Your task to perform on an android device: move a message to another label in the gmail app Image 0: 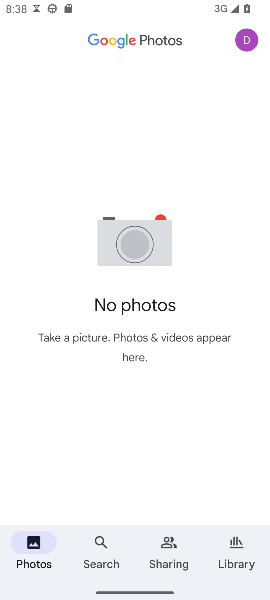
Step 0: press home button
Your task to perform on an android device: move a message to another label in the gmail app Image 1: 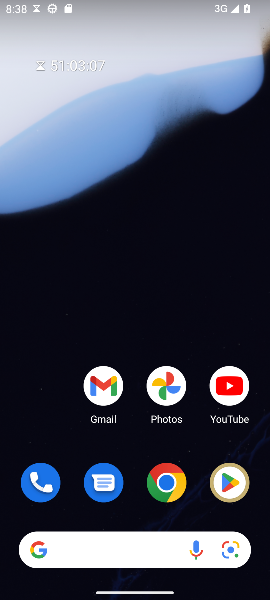
Step 1: drag from (202, 479) to (0, 50)
Your task to perform on an android device: move a message to another label in the gmail app Image 2: 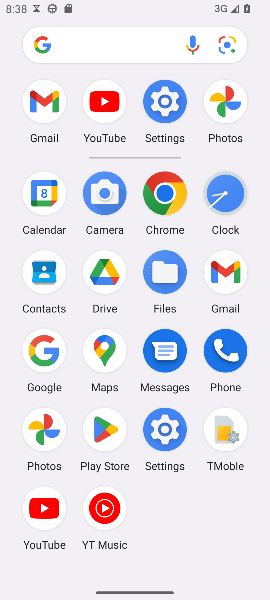
Step 2: click (31, 107)
Your task to perform on an android device: move a message to another label in the gmail app Image 3: 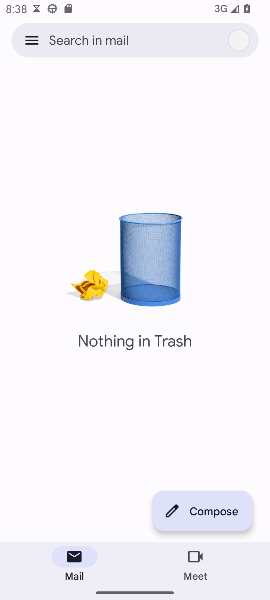
Step 3: click (21, 43)
Your task to perform on an android device: move a message to another label in the gmail app Image 4: 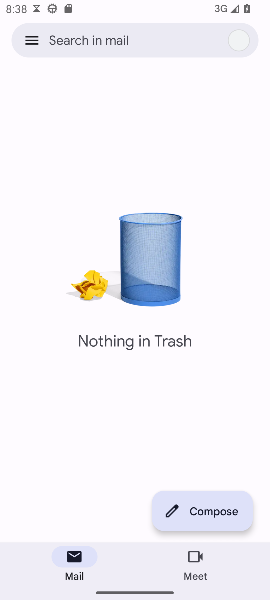
Step 4: click (21, 42)
Your task to perform on an android device: move a message to another label in the gmail app Image 5: 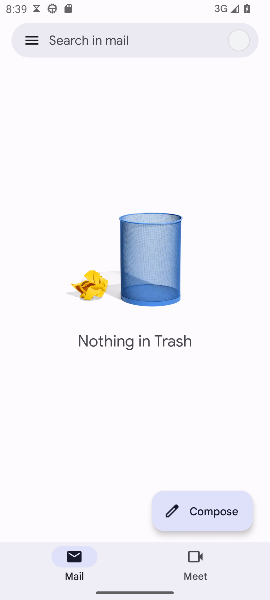
Step 5: click (35, 39)
Your task to perform on an android device: move a message to another label in the gmail app Image 6: 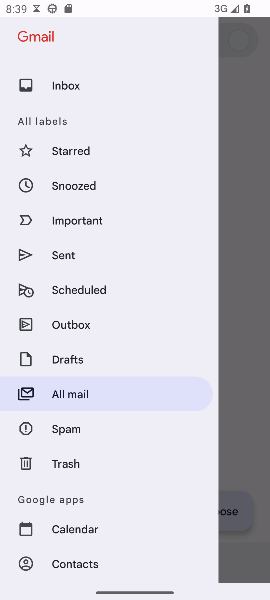
Step 6: click (95, 400)
Your task to perform on an android device: move a message to another label in the gmail app Image 7: 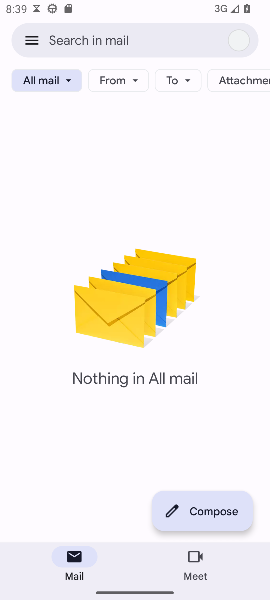
Step 7: task complete